Your task to perform on an android device: Open the Play Movies app and select the watchlist tab. Image 0: 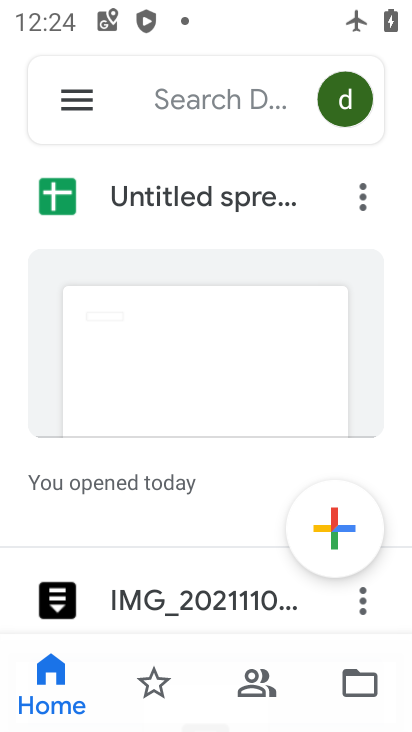
Step 0: press home button
Your task to perform on an android device: Open the Play Movies app and select the watchlist tab. Image 1: 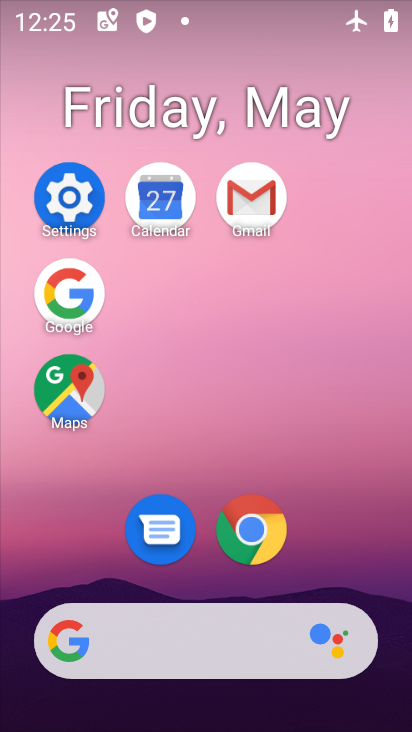
Step 1: drag from (331, 549) to (301, 27)
Your task to perform on an android device: Open the Play Movies app and select the watchlist tab. Image 2: 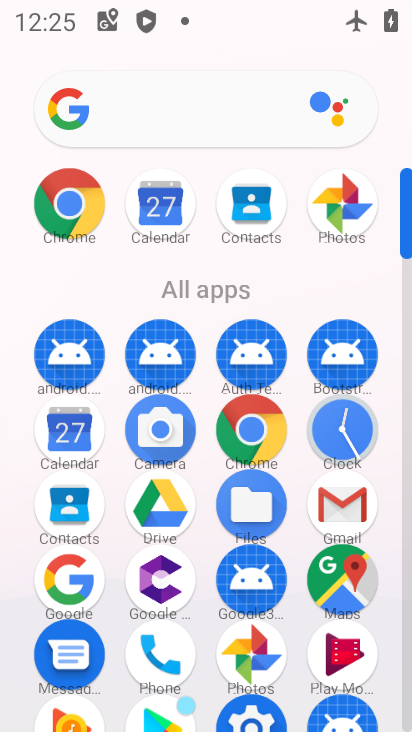
Step 2: drag from (235, 635) to (216, 185)
Your task to perform on an android device: Open the Play Movies app and select the watchlist tab. Image 3: 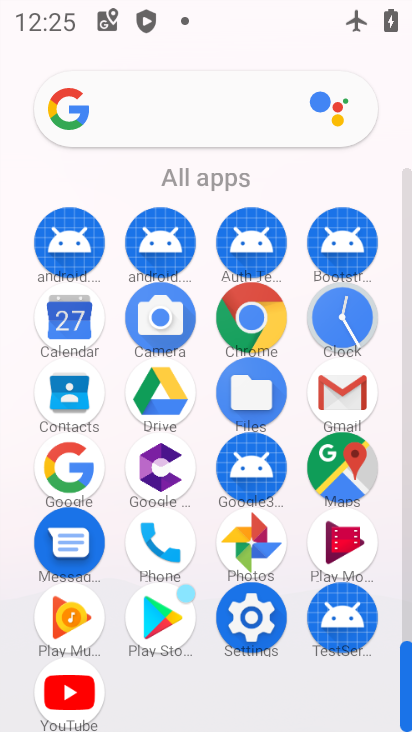
Step 3: click (343, 555)
Your task to perform on an android device: Open the Play Movies app and select the watchlist tab. Image 4: 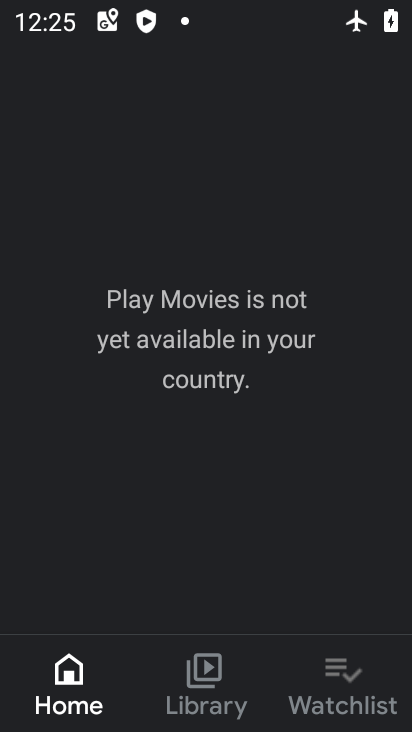
Step 4: click (349, 661)
Your task to perform on an android device: Open the Play Movies app and select the watchlist tab. Image 5: 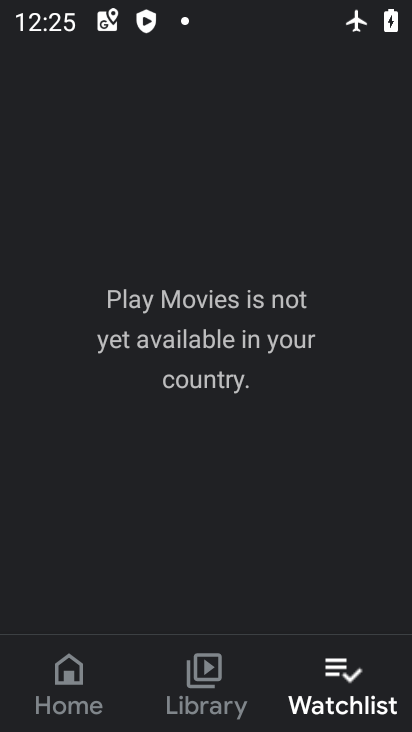
Step 5: task complete